Your task to perform on an android device: Open Google Image 0: 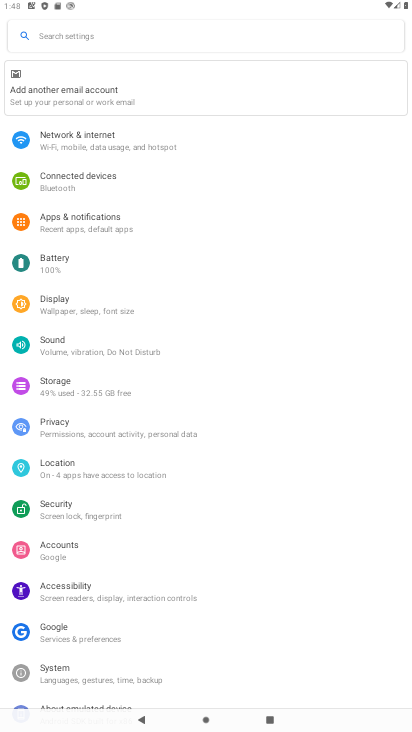
Step 0: press home button
Your task to perform on an android device: Open Google Image 1: 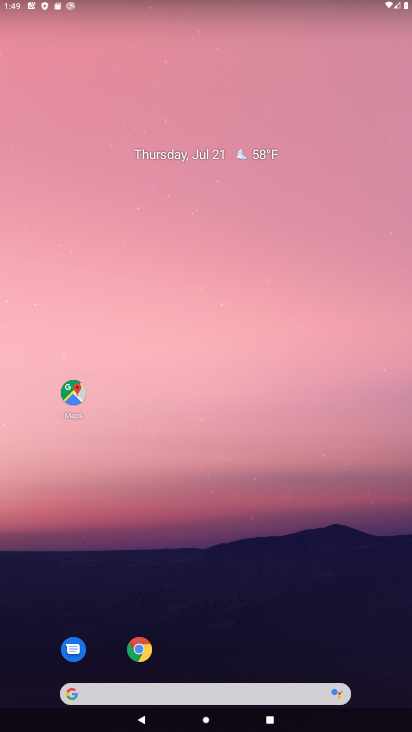
Step 1: click (202, 701)
Your task to perform on an android device: Open Google Image 2: 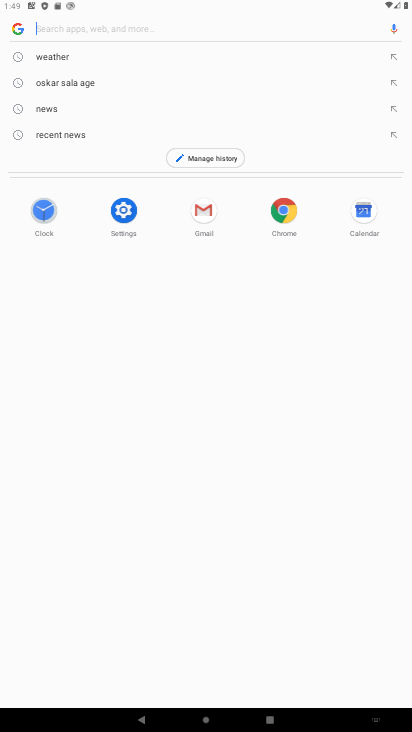
Step 2: type "google.com"
Your task to perform on an android device: Open Google Image 3: 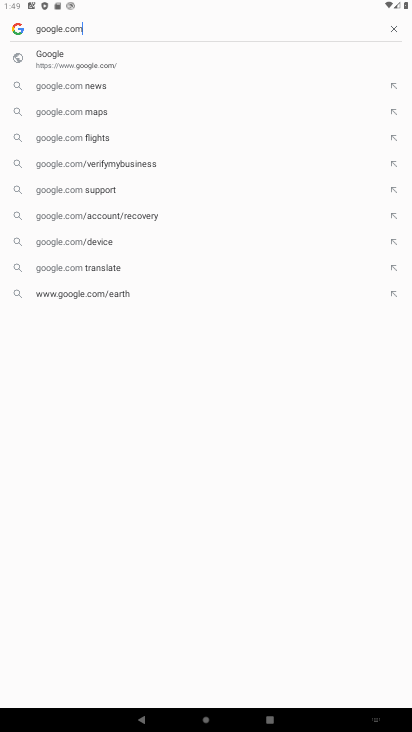
Step 3: click (71, 65)
Your task to perform on an android device: Open Google Image 4: 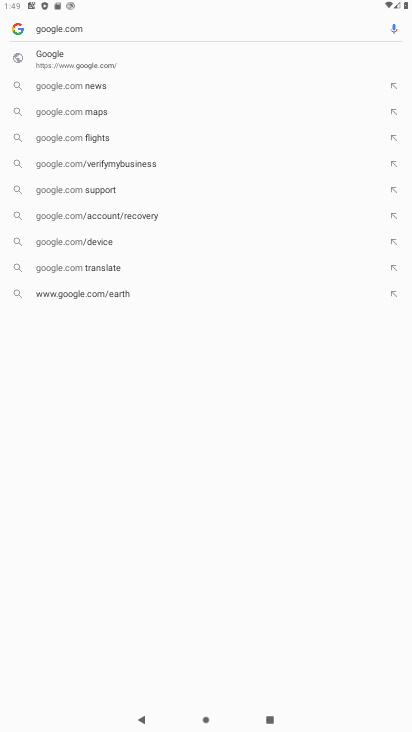
Step 4: task complete